Your task to perform on an android device: Open Maps and search for coffee Image 0: 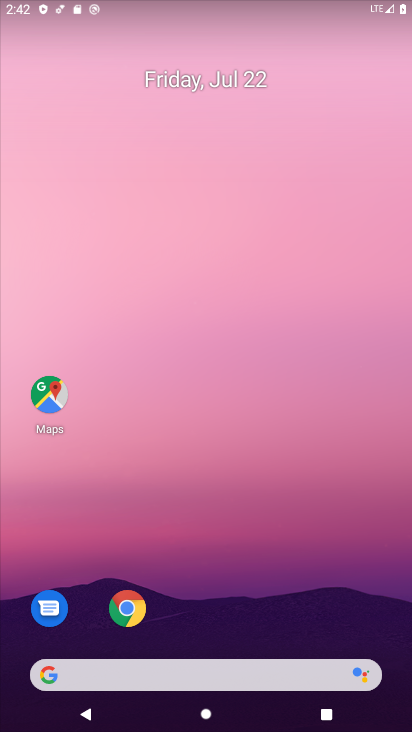
Step 0: click (57, 403)
Your task to perform on an android device: Open Maps and search for coffee Image 1: 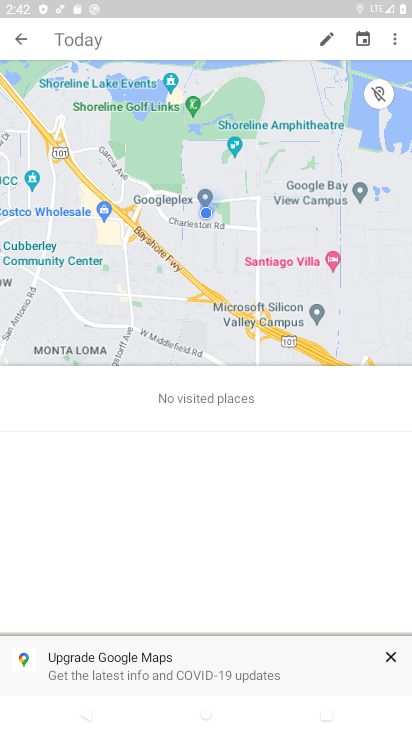
Step 1: click (17, 36)
Your task to perform on an android device: Open Maps and search for coffee Image 2: 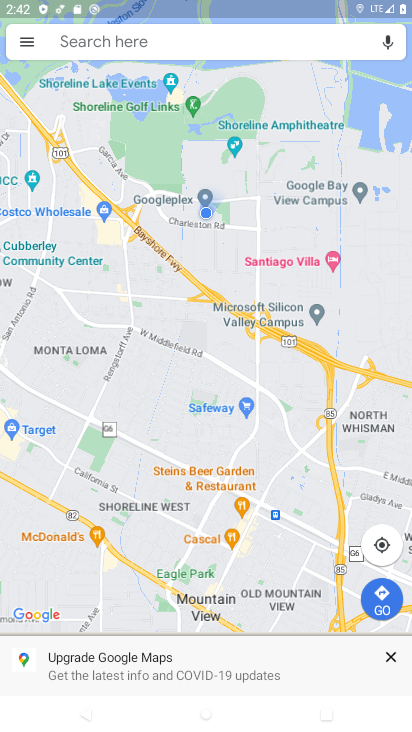
Step 2: click (183, 35)
Your task to perform on an android device: Open Maps and search for coffee Image 3: 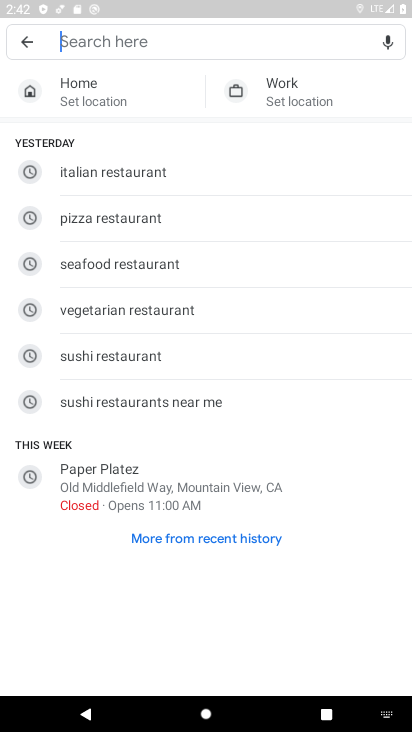
Step 3: type "coffee"
Your task to perform on an android device: Open Maps and search for coffee Image 4: 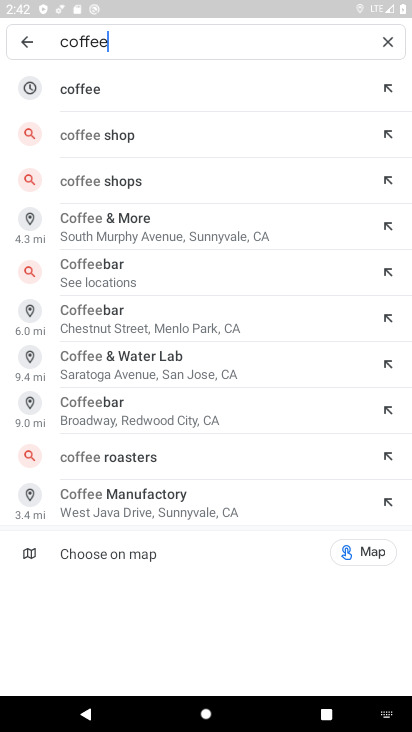
Step 4: click (103, 73)
Your task to perform on an android device: Open Maps and search for coffee Image 5: 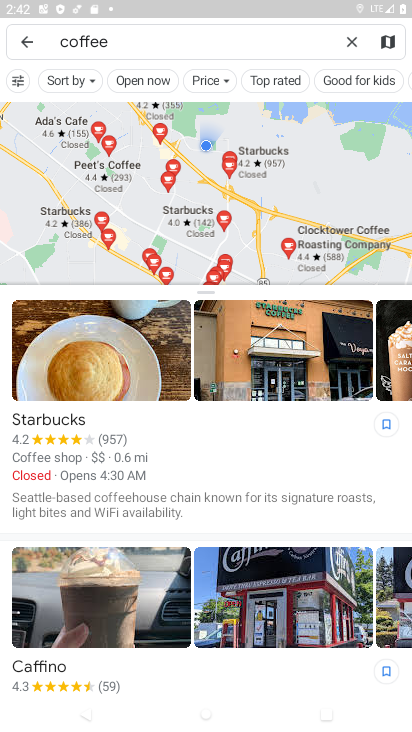
Step 5: task complete